Your task to perform on an android device: Go to sound settings Image 0: 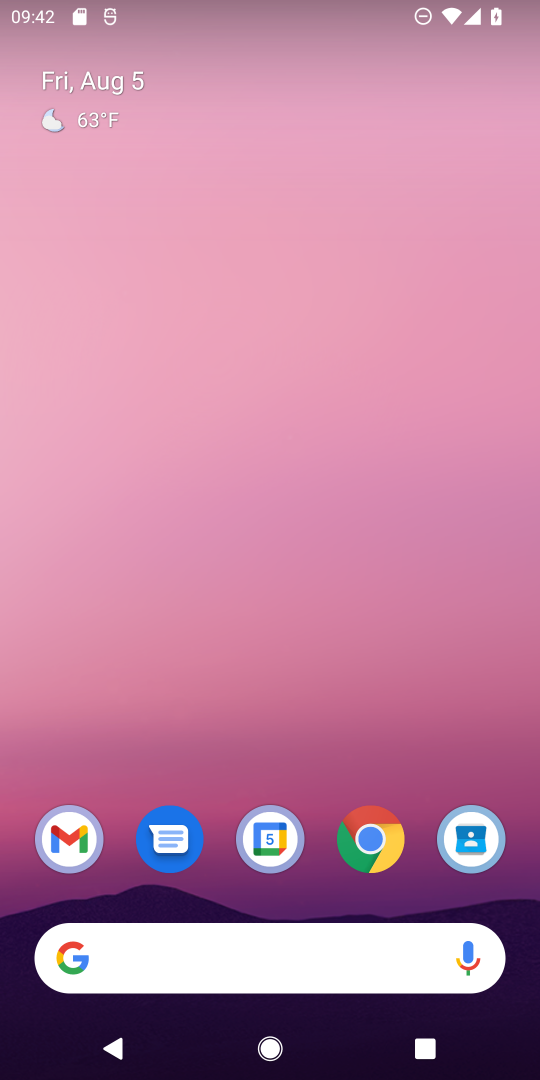
Step 0: drag from (306, 325) to (302, 139)
Your task to perform on an android device: Go to sound settings Image 1: 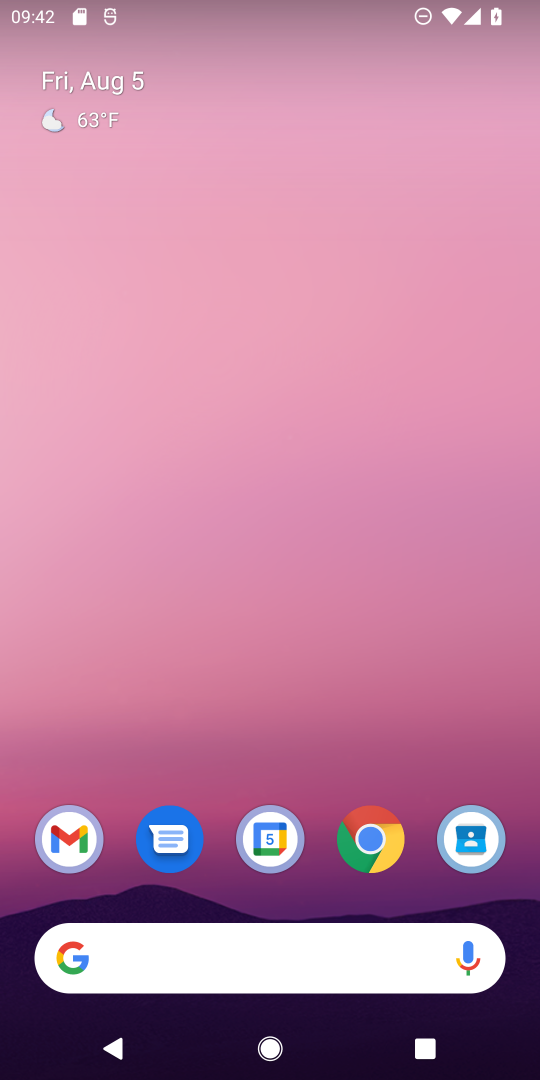
Step 1: drag from (316, 854) to (281, 164)
Your task to perform on an android device: Go to sound settings Image 2: 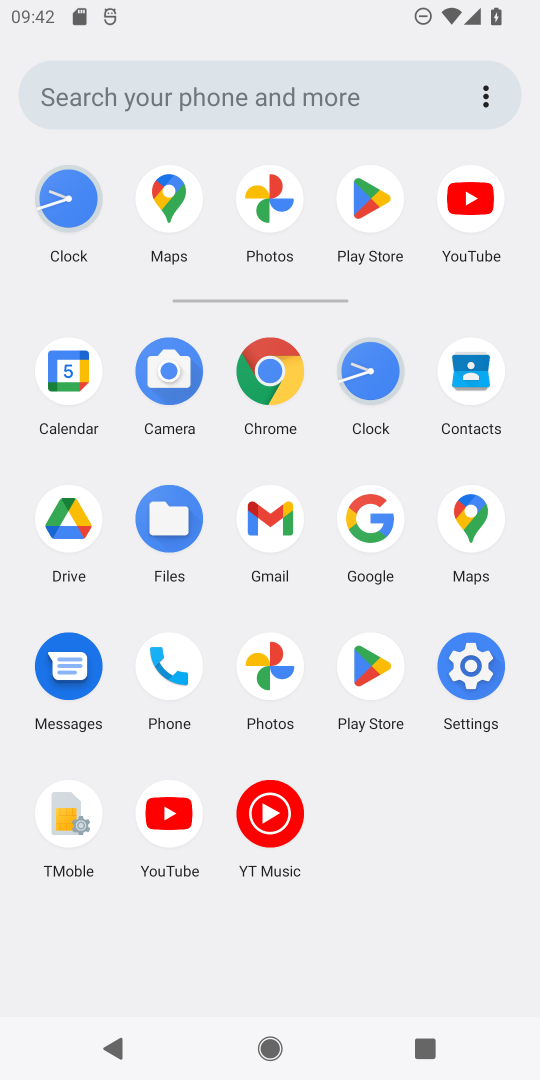
Step 2: click (475, 676)
Your task to perform on an android device: Go to sound settings Image 3: 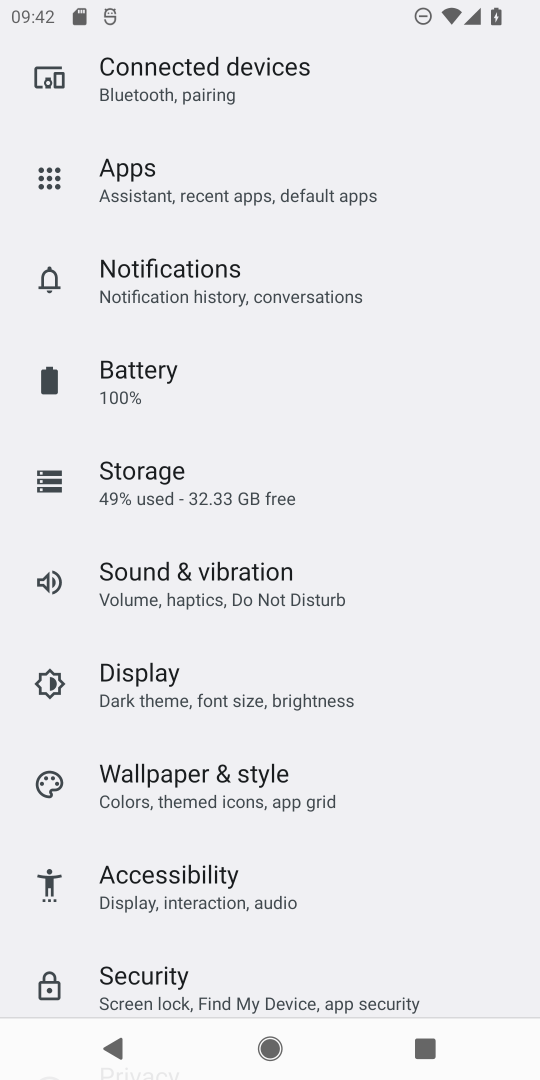
Step 3: drag from (137, 210) to (113, 726)
Your task to perform on an android device: Go to sound settings Image 4: 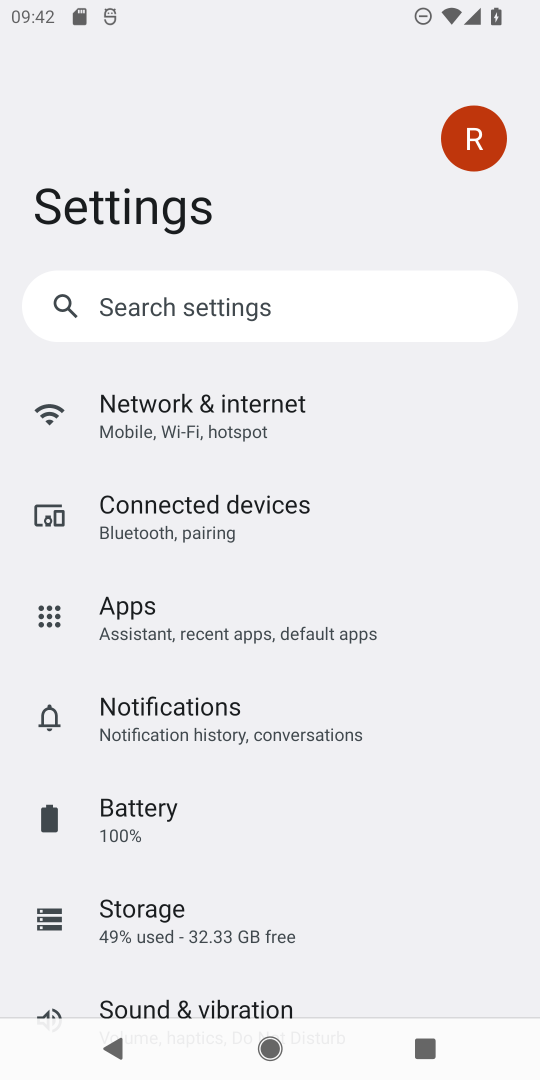
Step 4: drag from (175, 908) to (151, 402)
Your task to perform on an android device: Go to sound settings Image 5: 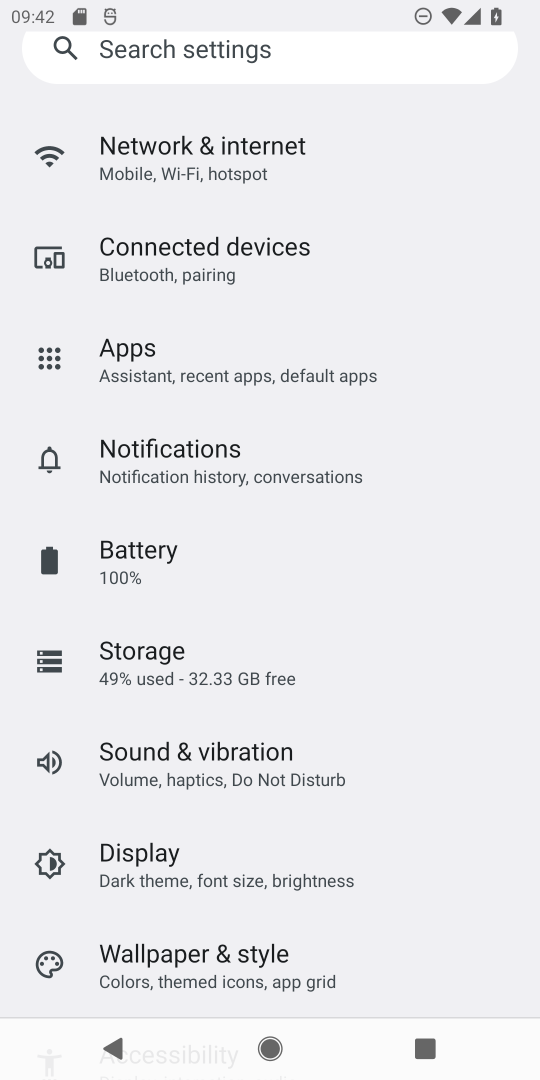
Step 5: drag from (176, 893) to (152, 393)
Your task to perform on an android device: Go to sound settings Image 6: 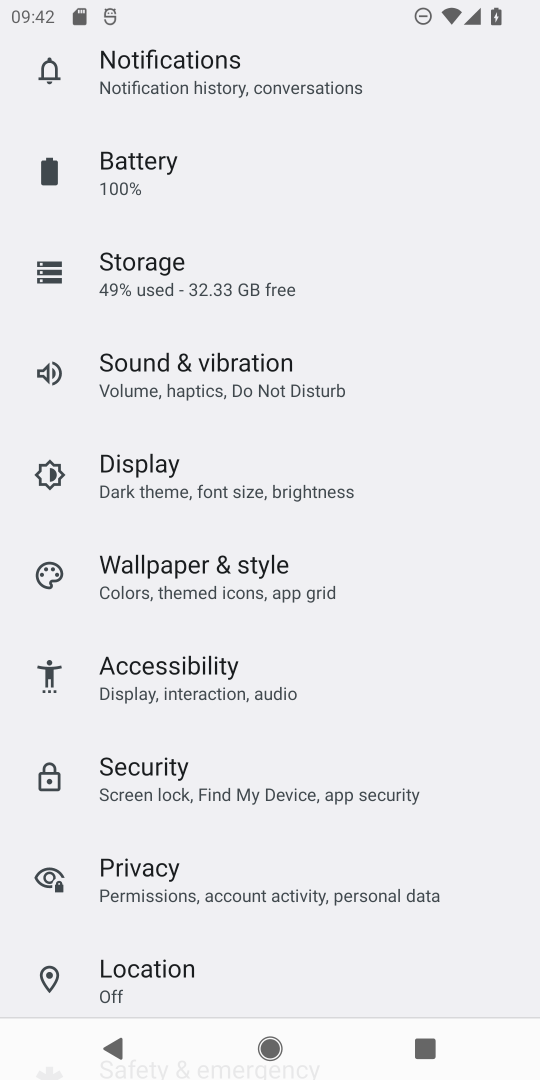
Step 6: click (113, 362)
Your task to perform on an android device: Go to sound settings Image 7: 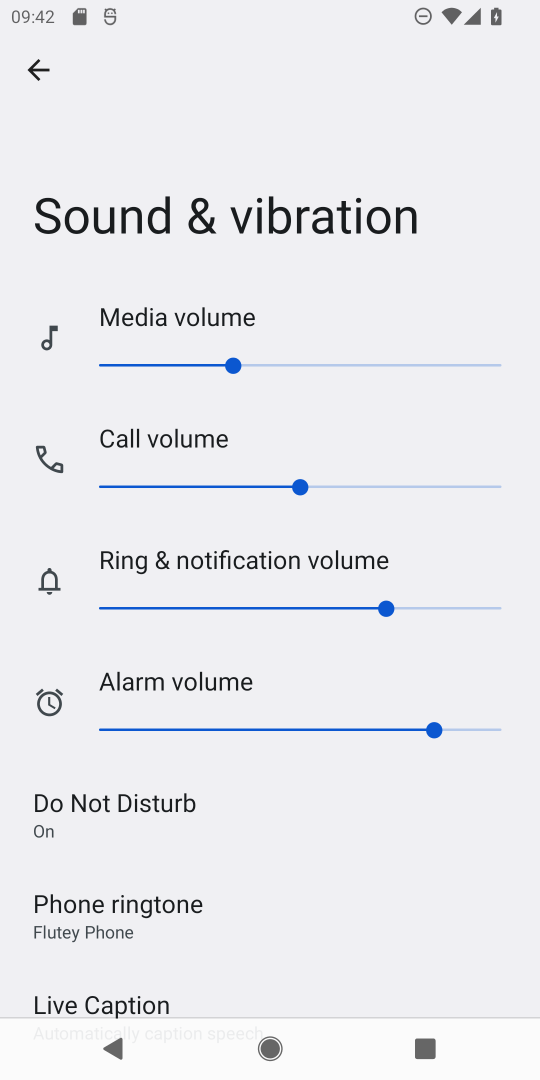
Step 7: task complete